Your task to perform on an android device: Go to Wikipedia Image 0: 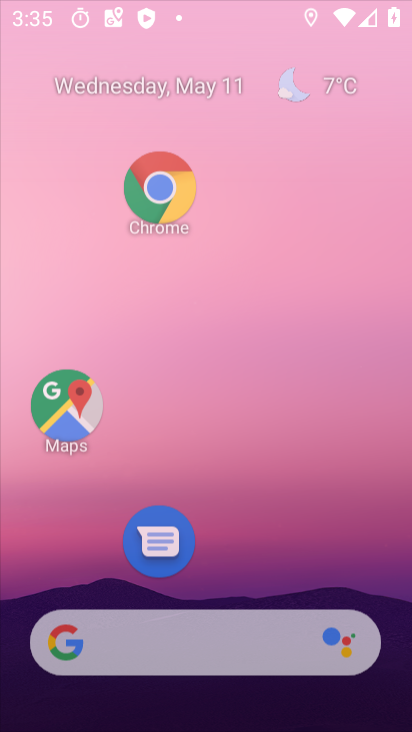
Step 0: press home button
Your task to perform on an android device: Go to Wikipedia Image 1: 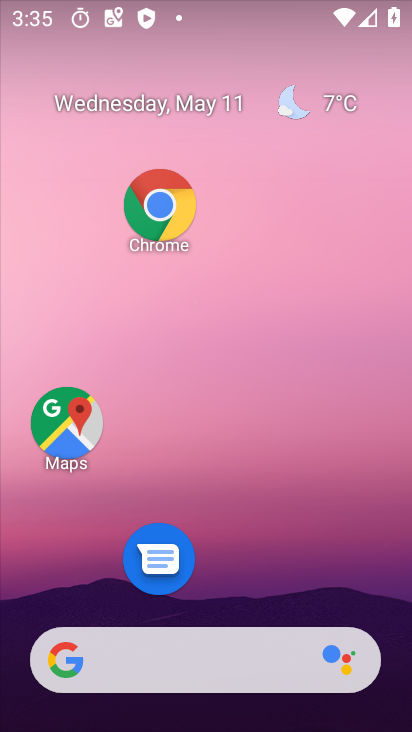
Step 1: click (154, 206)
Your task to perform on an android device: Go to Wikipedia Image 2: 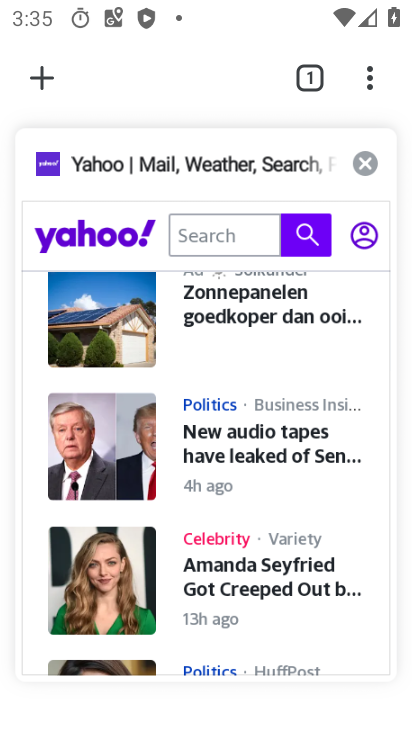
Step 2: click (33, 77)
Your task to perform on an android device: Go to Wikipedia Image 3: 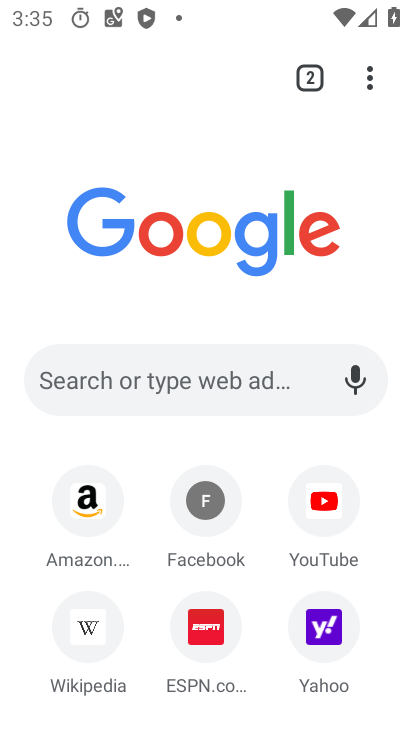
Step 3: click (76, 631)
Your task to perform on an android device: Go to Wikipedia Image 4: 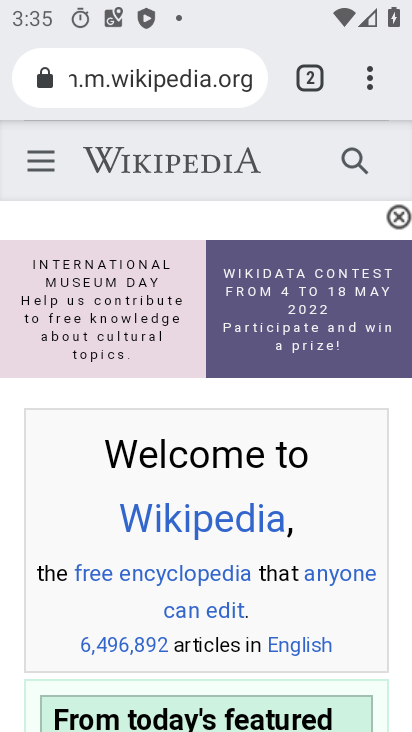
Step 4: task complete